Your task to perform on an android device: What's the weather going to be tomorrow? Image 0: 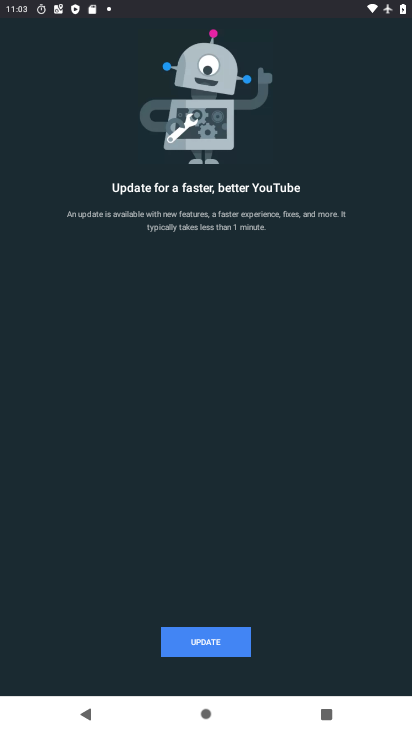
Step 0: press home button
Your task to perform on an android device: What's the weather going to be tomorrow? Image 1: 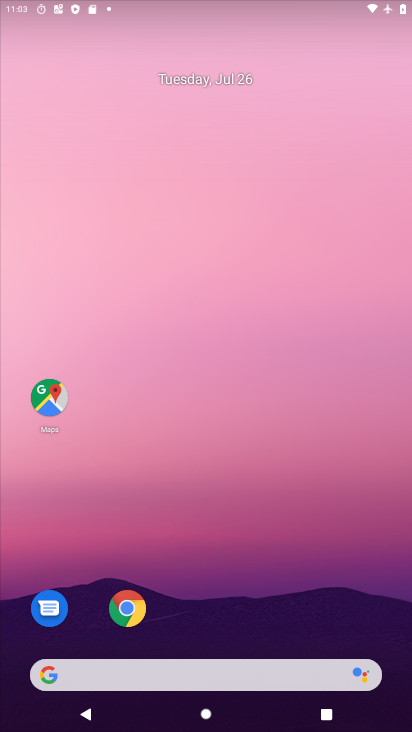
Step 1: drag from (209, 602) to (205, 47)
Your task to perform on an android device: What's the weather going to be tomorrow? Image 2: 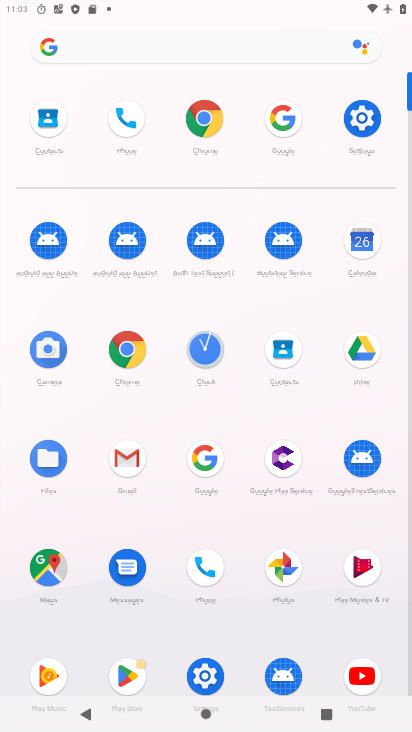
Step 2: click (208, 465)
Your task to perform on an android device: What's the weather going to be tomorrow? Image 3: 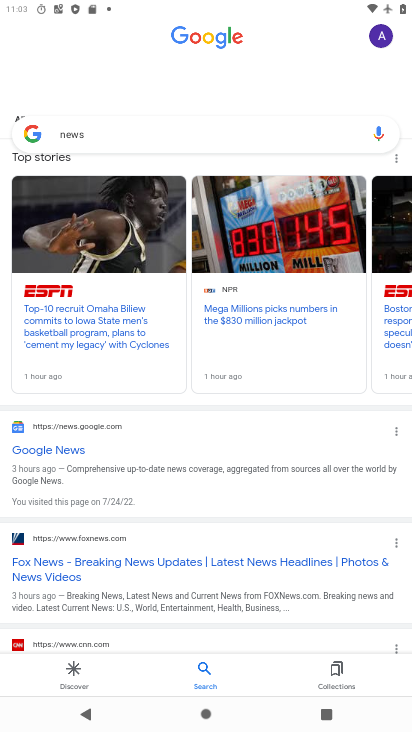
Step 3: click (125, 129)
Your task to perform on an android device: What's the weather going to be tomorrow? Image 4: 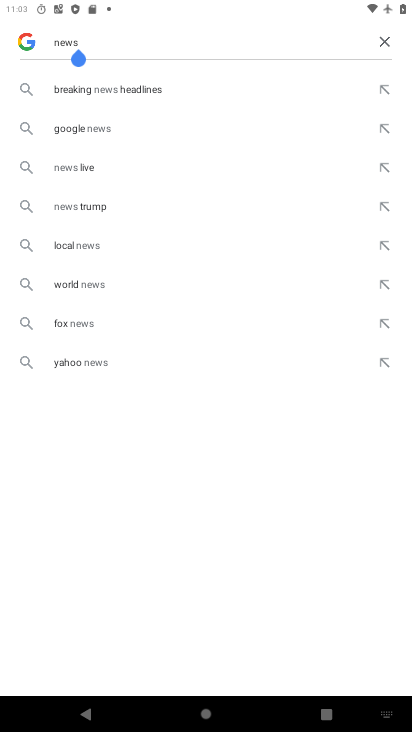
Step 4: click (382, 44)
Your task to perform on an android device: What's the weather going to be tomorrow? Image 5: 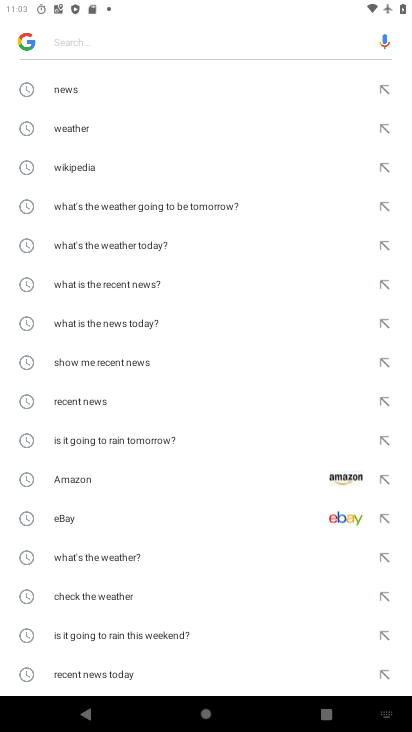
Step 5: click (108, 124)
Your task to perform on an android device: What's the weather going to be tomorrow? Image 6: 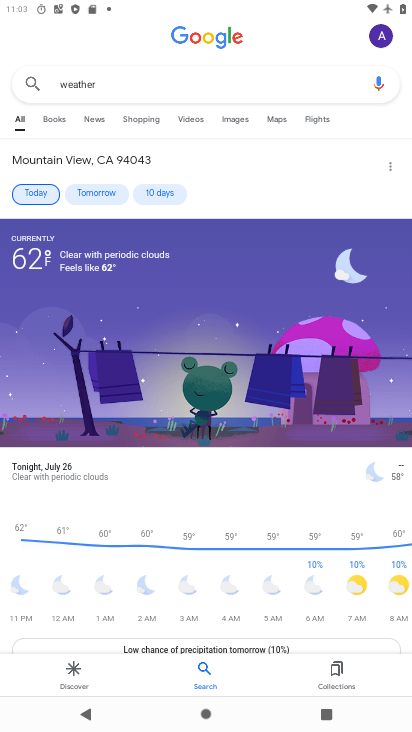
Step 6: click (90, 190)
Your task to perform on an android device: What's the weather going to be tomorrow? Image 7: 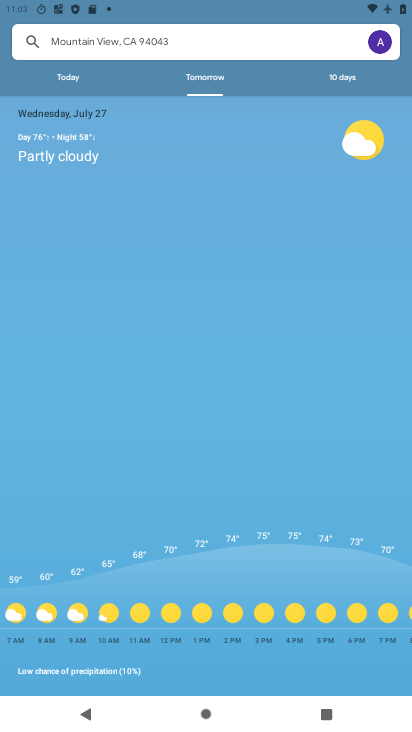
Step 7: task complete